Your task to perform on an android device: turn on location history Image 0: 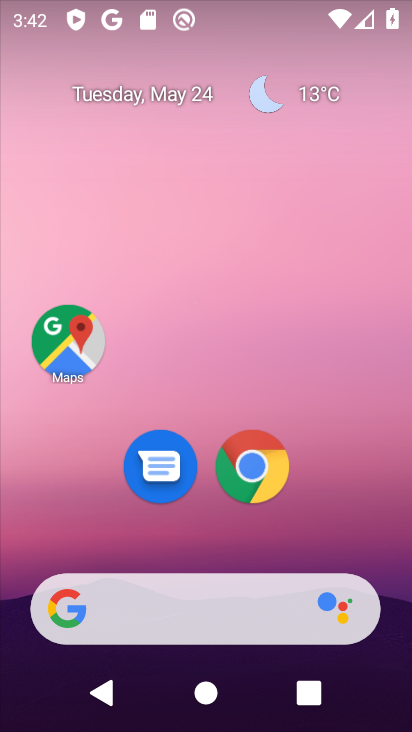
Step 0: drag from (314, 520) to (320, 176)
Your task to perform on an android device: turn on location history Image 1: 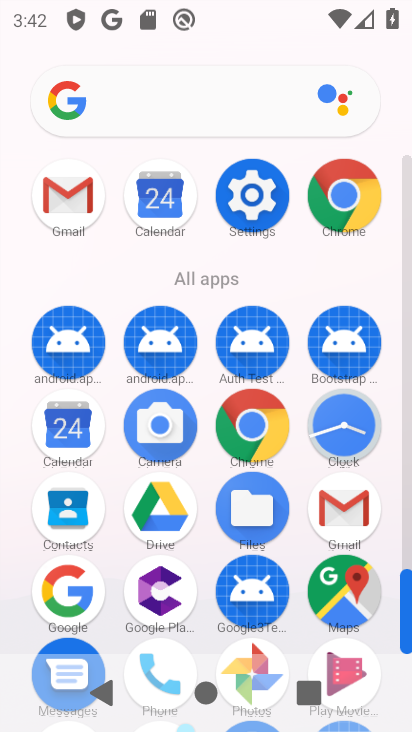
Step 1: click (270, 205)
Your task to perform on an android device: turn on location history Image 2: 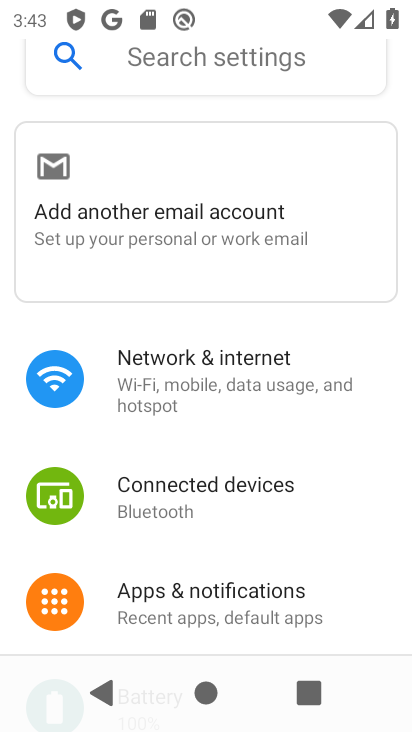
Step 2: drag from (270, 620) to (292, 81)
Your task to perform on an android device: turn on location history Image 3: 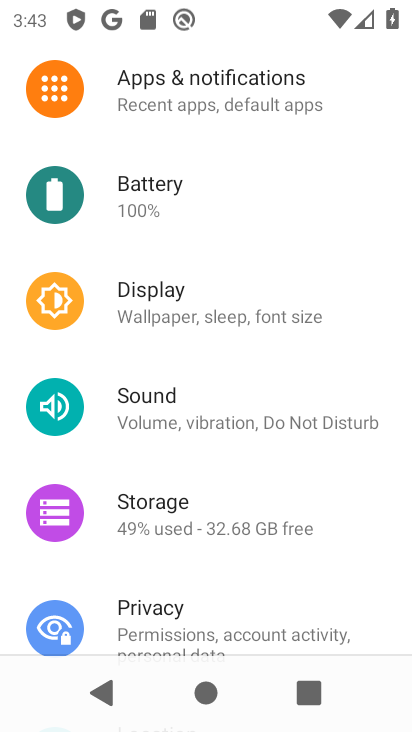
Step 3: drag from (182, 557) to (270, 224)
Your task to perform on an android device: turn on location history Image 4: 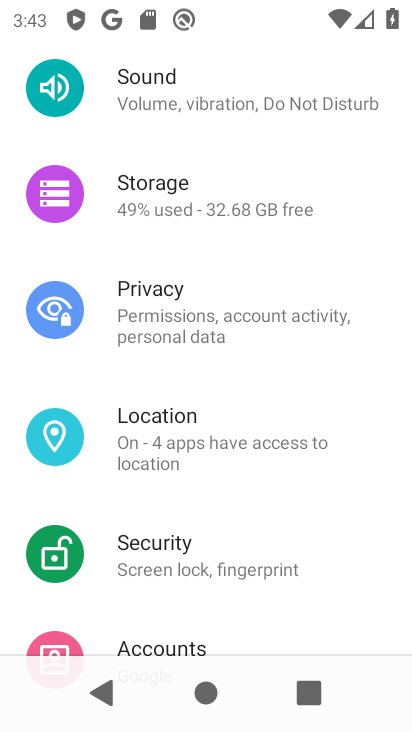
Step 4: click (180, 484)
Your task to perform on an android device: turn on location history Image 5: 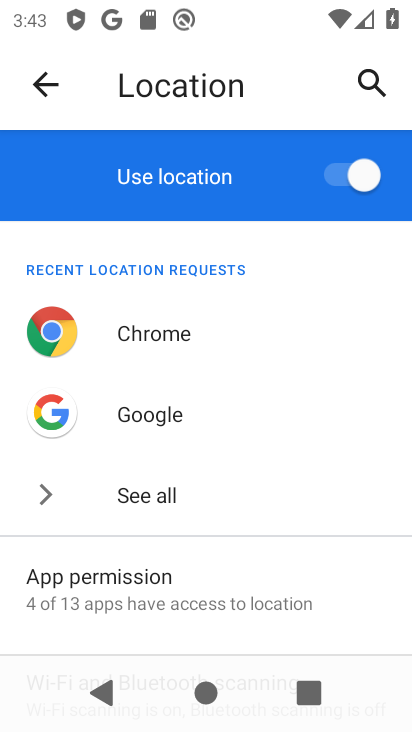
Step 5: drag from (304, 564) to (314, 164)
Your task to perform on an android device: turn on location history Image 6: 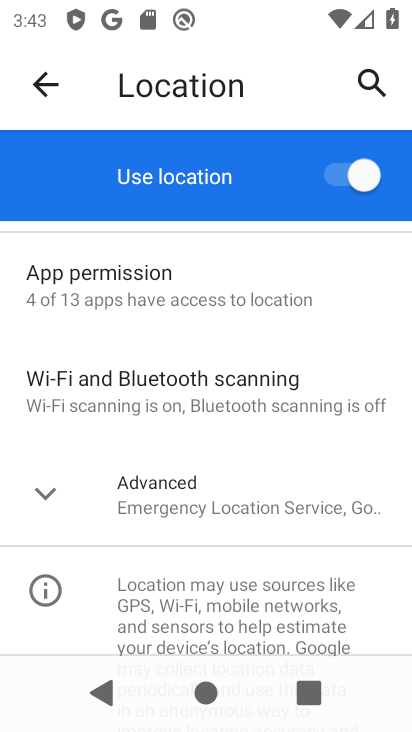
Step 6: click (224, 510)
Your task to perform on an android device: turn on location history Image 7: 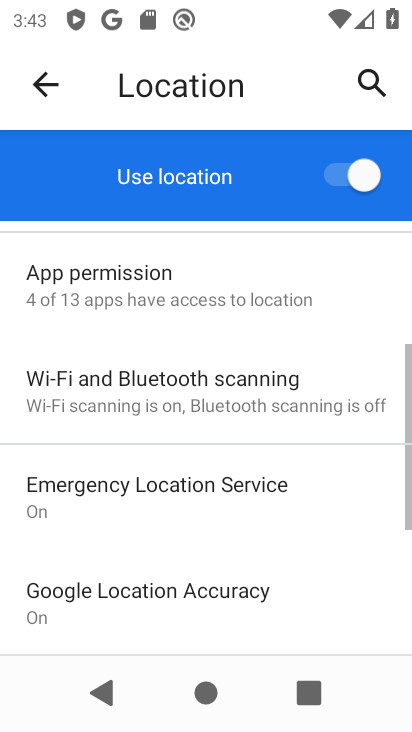
Step 7: drag from (261, 544) to (289, 275)
Your task to perform on an android device: turn on location history Image 8: 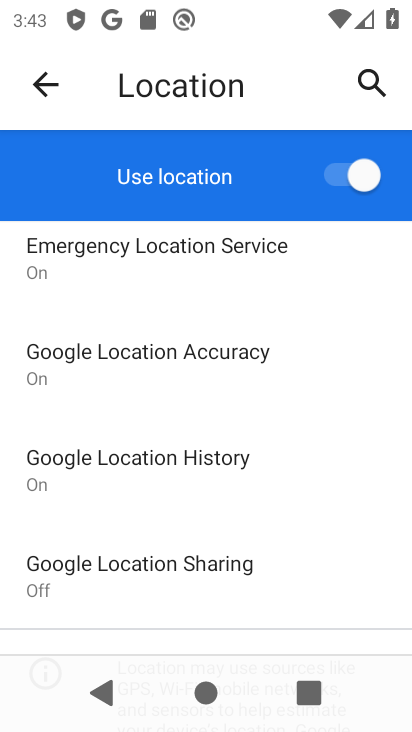
Step 8: click (222, 463)
Your task to perform on an android device: turn on location history Image 9: 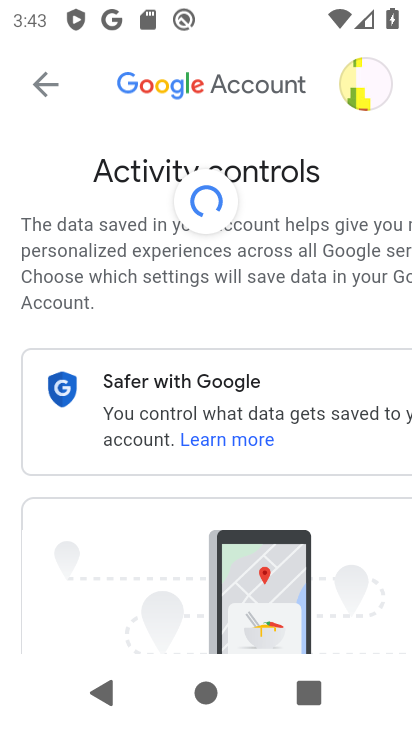
Step 9: task complete